Your task to perform on an android device: turn on improve location accuracy Image 0: 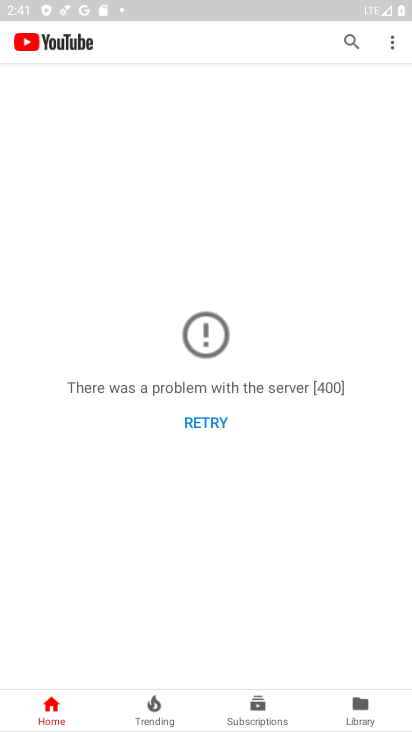
Step 0: drag from (215, 683) to (247, 212)
Your task to perform on an android device: turn on improve location accuracy Image 1: 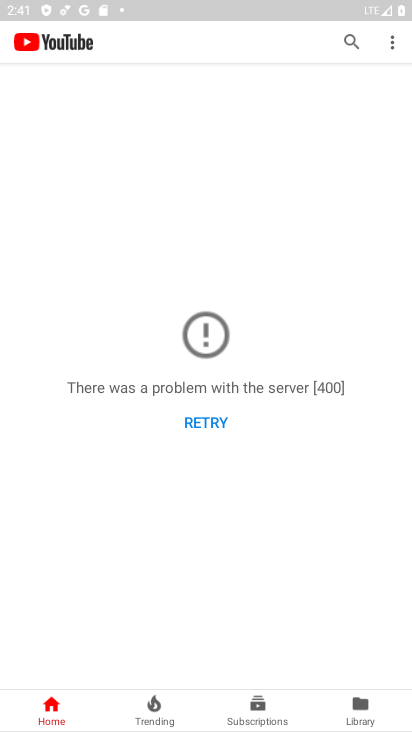
Step 1: press home button
Your task to perform on an android device: turn on improve location accuracy Image 2: 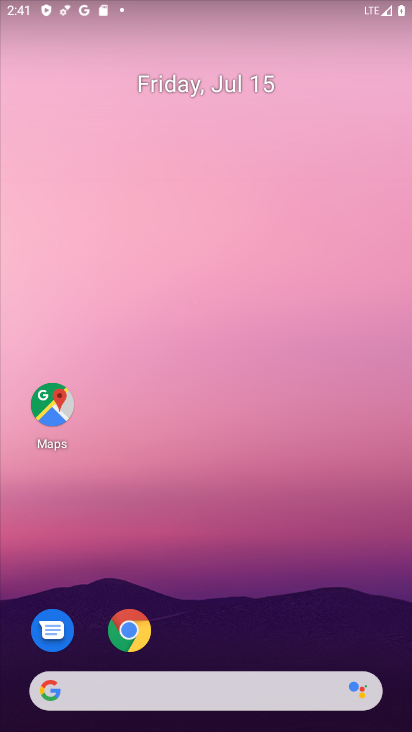
Step 2: drag from (190, 544) to (202, 184)
Your task to perform on an android device: turn on improve location accuracy Image 3: 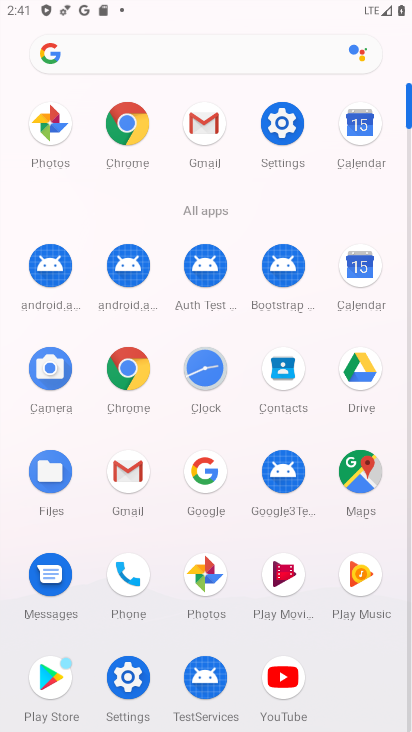
Step 3: click (124, 674)
Your task to perform on an android device: turn on improve location accuracy Image 4: 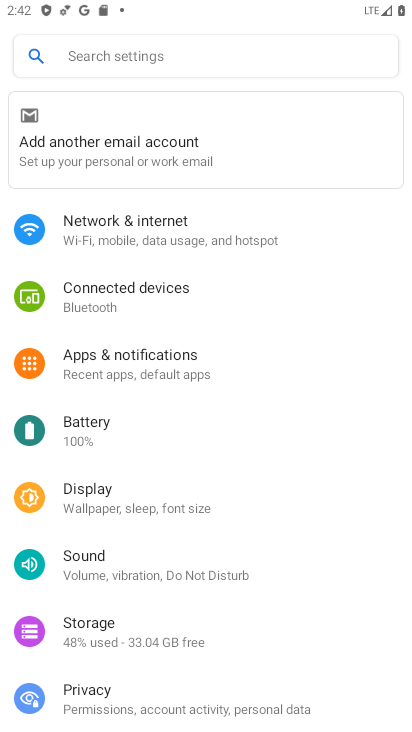
Step 4: drag from (118, 624) to (107, 234)
Your task to perform on an android device: turn on improve location accuracy Image 5: 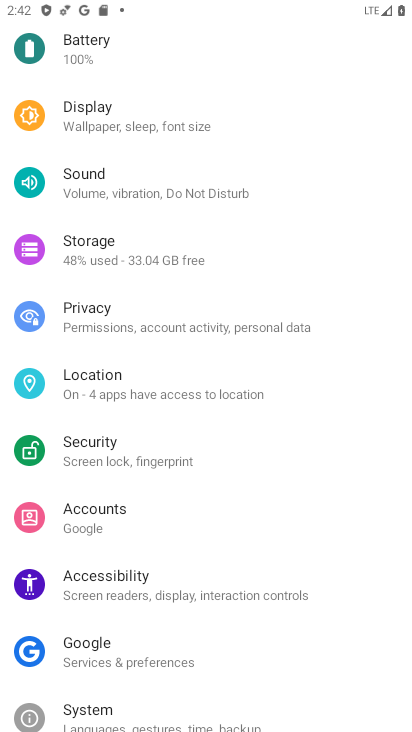
Step 5: click (93, 392)
Your task to perform on an android device: turn on improve location accuracy Image 6: 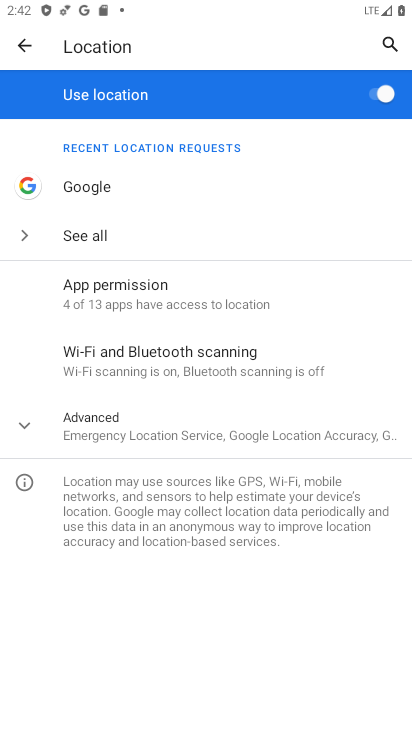
Step 6: click (152, 431)
Your task to perform on an android device: turn on improve location accuracy Image 7: 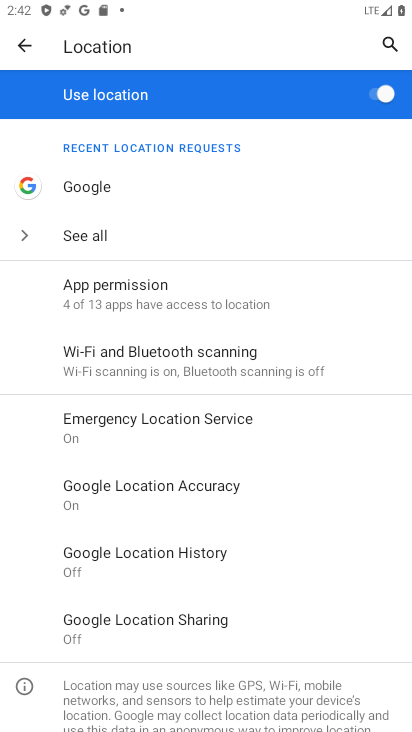
Step 7: click (162, 492)
Your task to perform on an android device: turn on improve location accuracy Image 8: 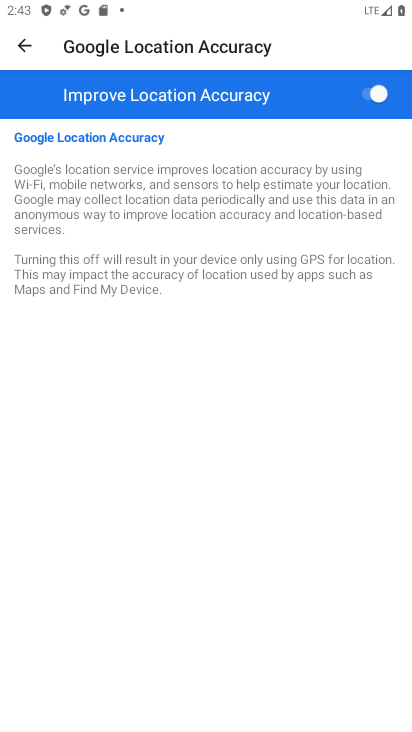
Step 8: task complete